Your task to perform on an android device: Open calendar and show me the first week of next month Image 0: 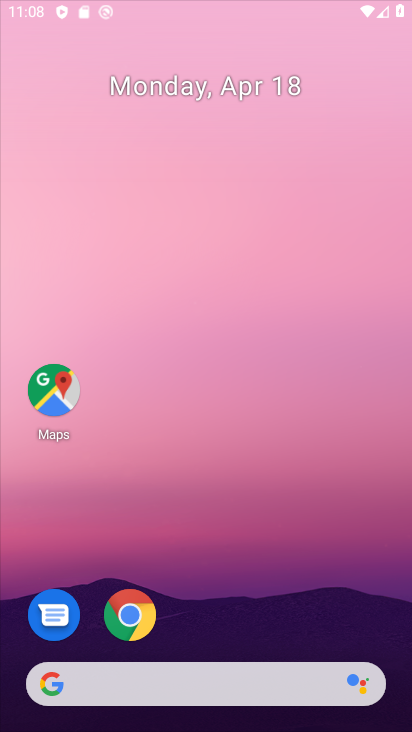
Step 0: drag from (361, 604) to (373, 317)
Your task to perform on an android device: Open calendar and show me the first week of next month Image 1: 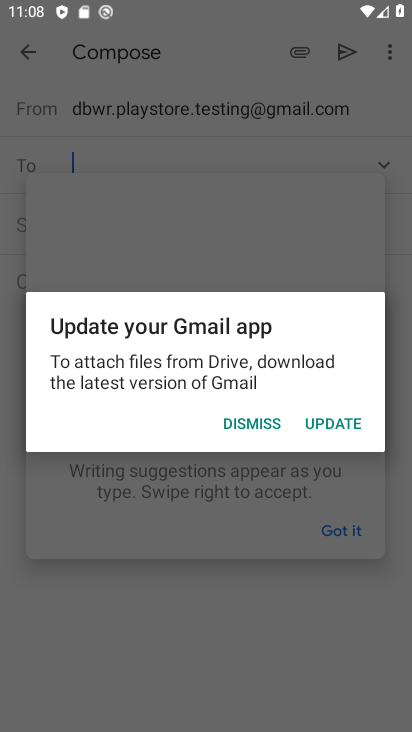
Step 1: press home button
Your task to perform on an android device: Open calendar and show me the first week of next month Image 2: 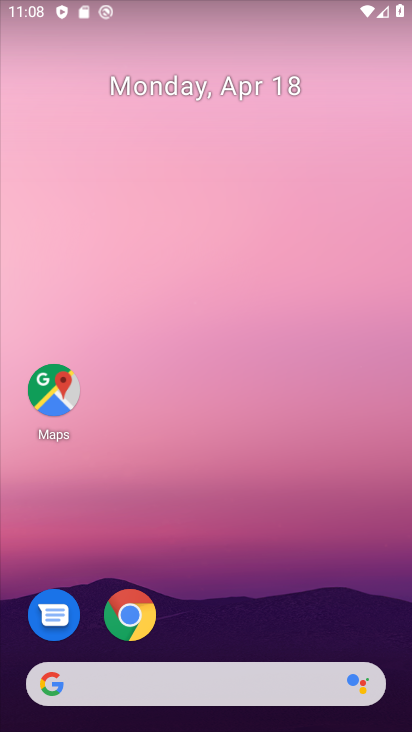
Step 2: drag from (365, 622) to (334, 227)
Your task to perform on an android device: Open calendar and show me the first week of next month Image 3: 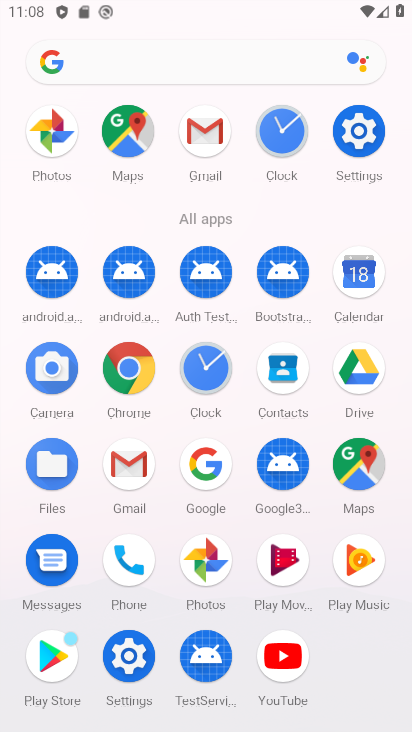
Step 3: click (362, 274)
Your task to perform on an android device: Open calendar and show me the first week of next month Image 4: 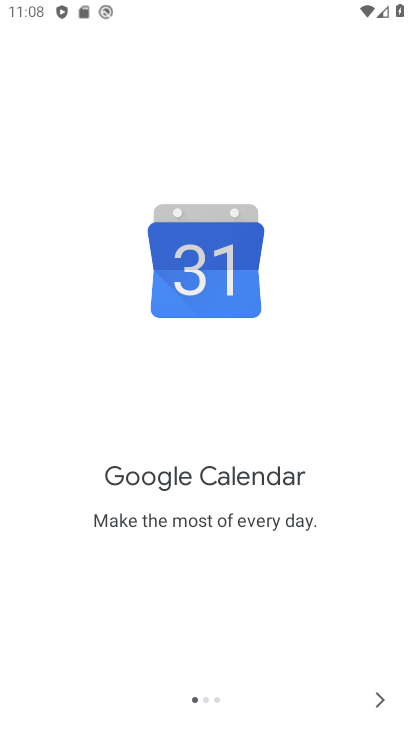
Step 4: click (370, 699)
Your task to perform on an android device: Open calendar and show me the first week of next month Image 5: 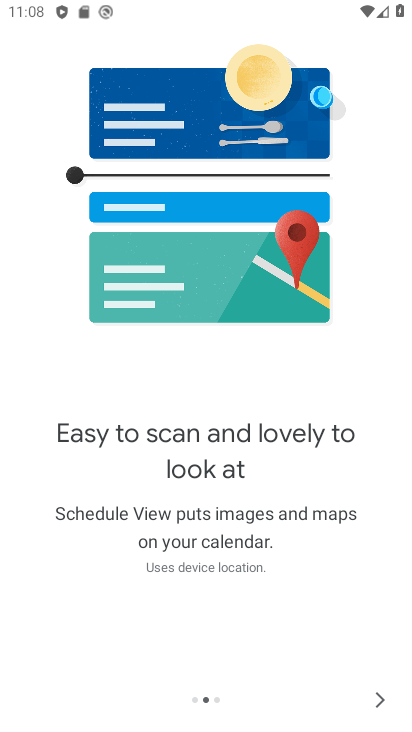
Step 5: click (371, 700)
Your task to perform on an android device: Open calendar and show me the first week of next month Image 6: 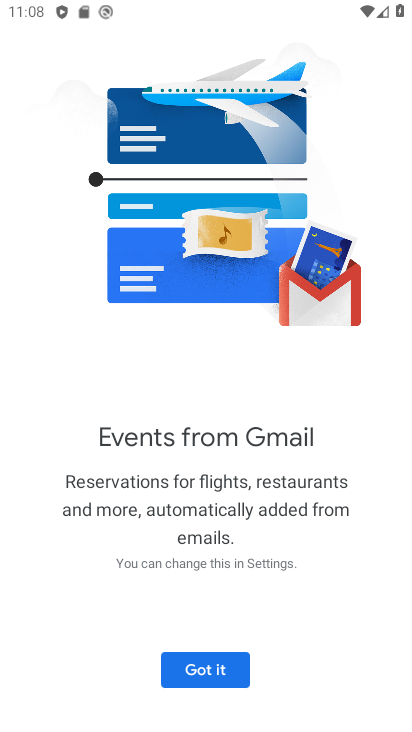
Step 6: click (194, 676)
Your task to perform on an android device: Open calendar and show me the first week of next month Image 7: 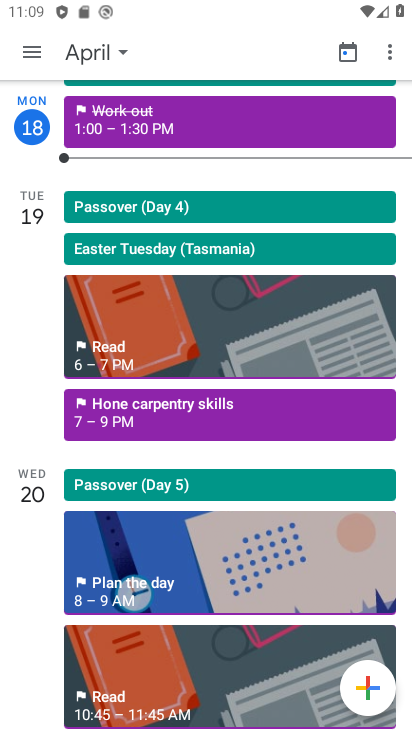
Step 7: click (125, 65)
Your task to perform on an android device: Open calendar and show me the first week of next month Image 8: 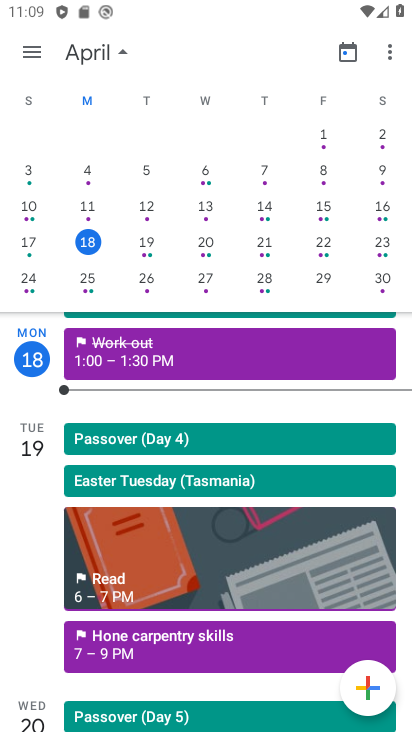
Step 8: drag from (393, 195) to (0, 199)
Your task to perform on an android device: Open calendar and show me the first week of next month Image 9: 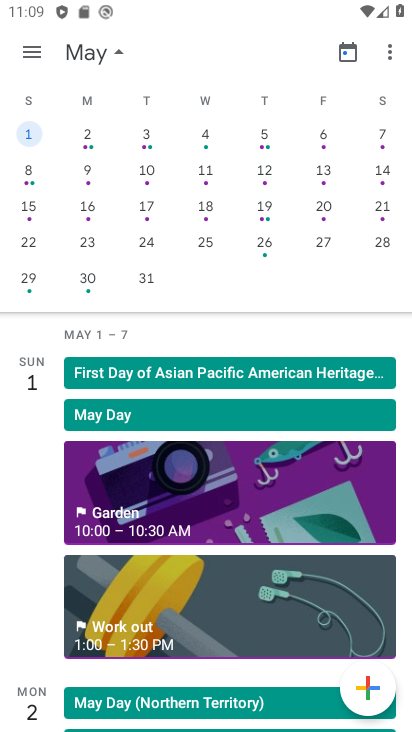
Step 9: click (86, 140)
Your task to perform on an android device: Open calendar and show me the first week of next month Image 10: 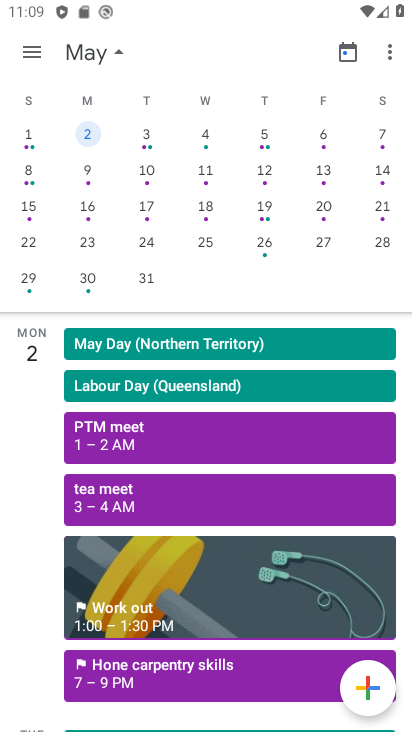
Step 10: task complete